Your task to perform on an android device: Open ESPN.com Image 0: 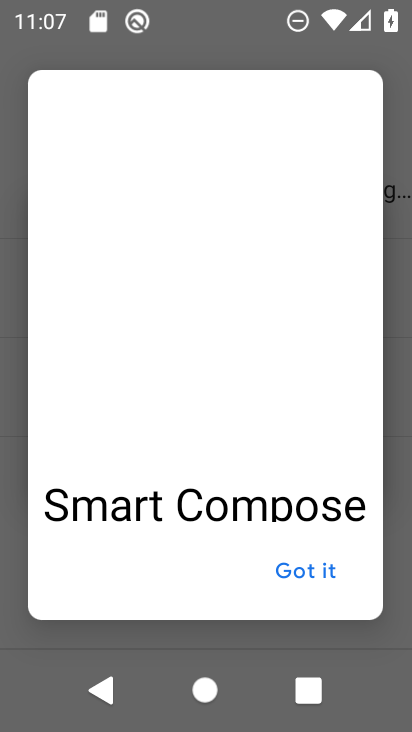
Step 0: press home button
Your task to perform on an android device: Open ESPN.com Image 1: 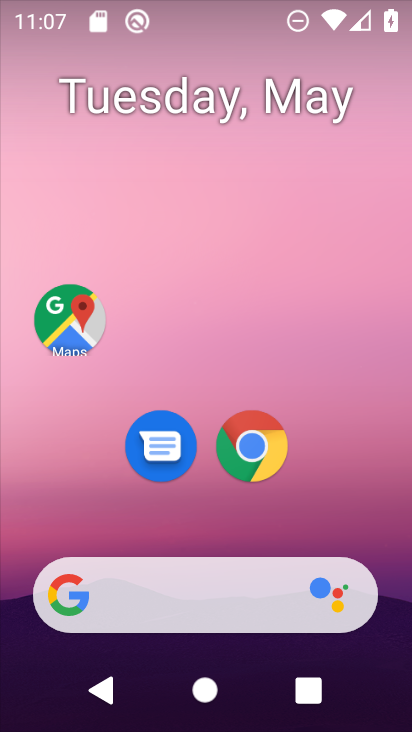
Step 1: click (265, 450)
Your task to perform on an android device: Open ESPN.com Image 2: 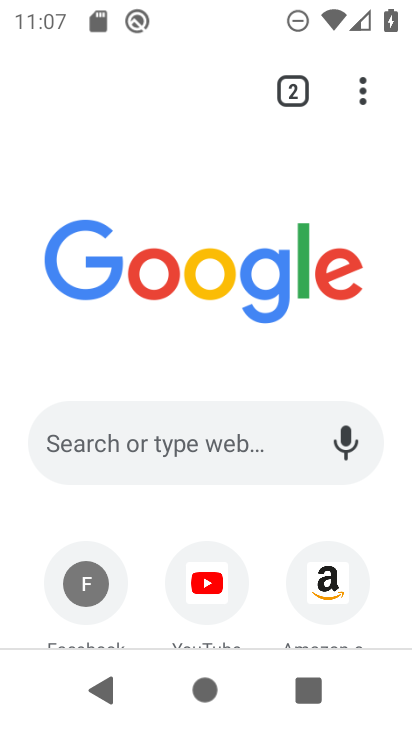
Step 2: drag from (213, 502) to (228, 375)
Your task to perform on an android device: Open ESPN.com Image 3: 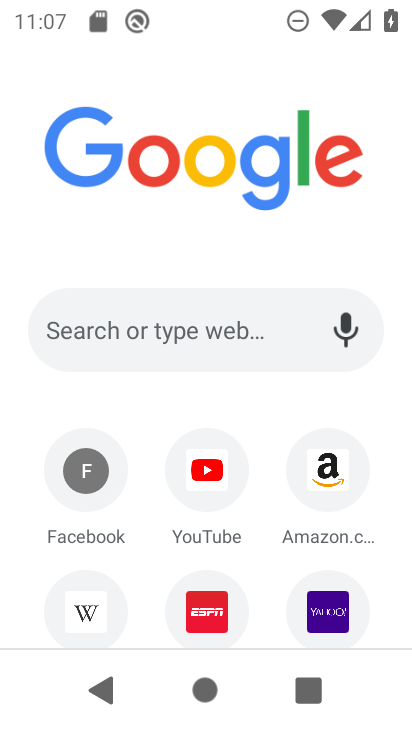
Step 3: click (225, 607)
Your task to perform on an android device: Open ESPN.com Image 4: 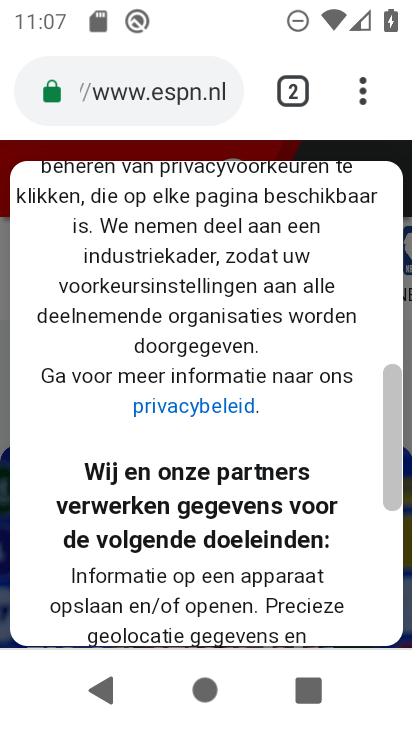
Step 4: task complete